Your task to perform on an android device: Turn on the flashlight Image 0: 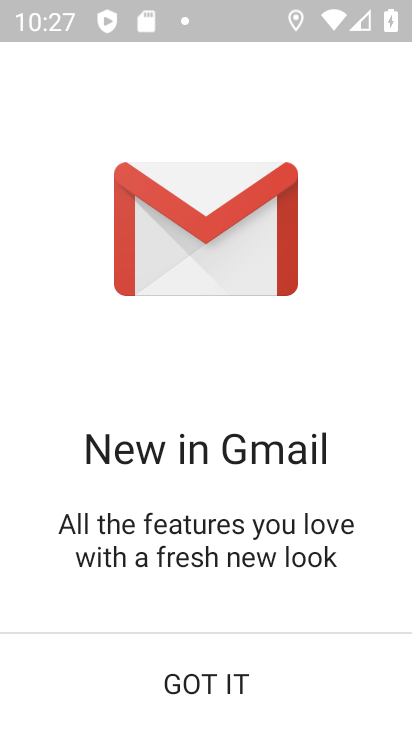
Step 0: press home button
Your task to perform on an android device: Turn on the flashlight Image 1: 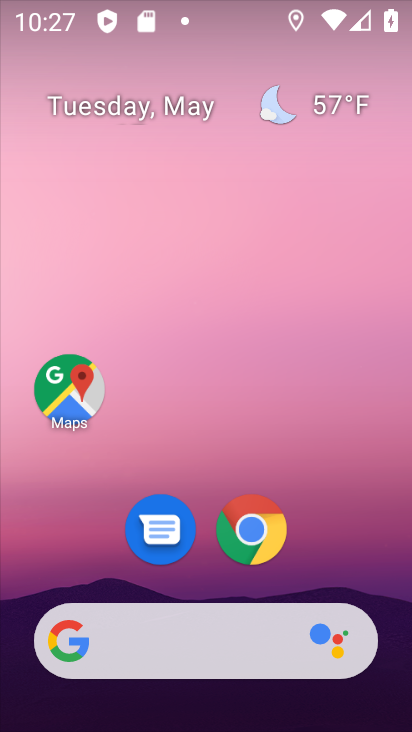
Step 1: drag from (237, 572) to (294, 61)
Your task to perform on an android device: Turn on the flashlight Image 2: 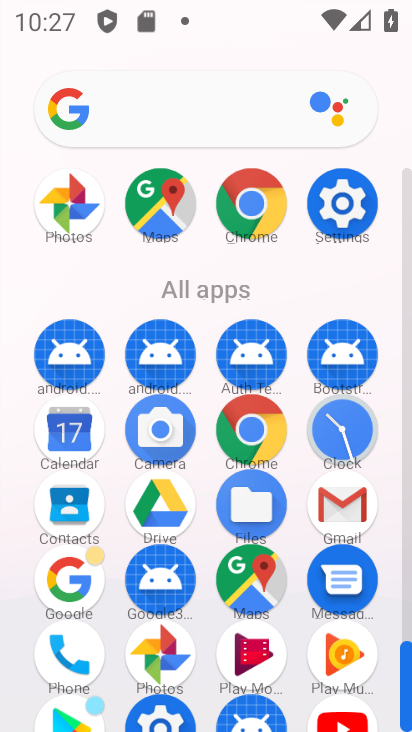
Step 2: click (341, 216)
Your task to perform on an android device: Turn on the flashlight Image 3: 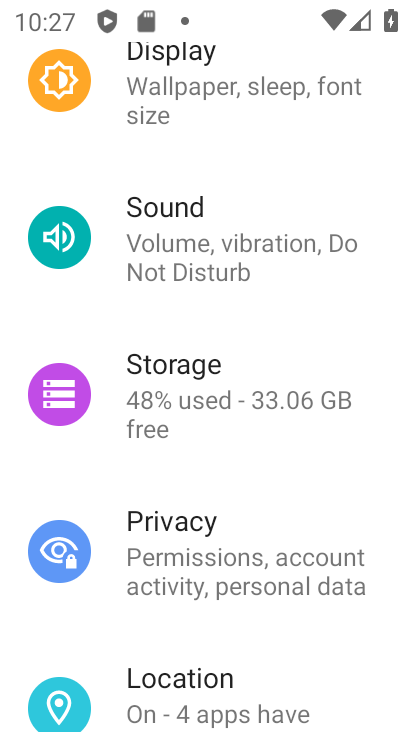
Step 3: task complete